Your task to perform on an android device: Open network settings Image 0: 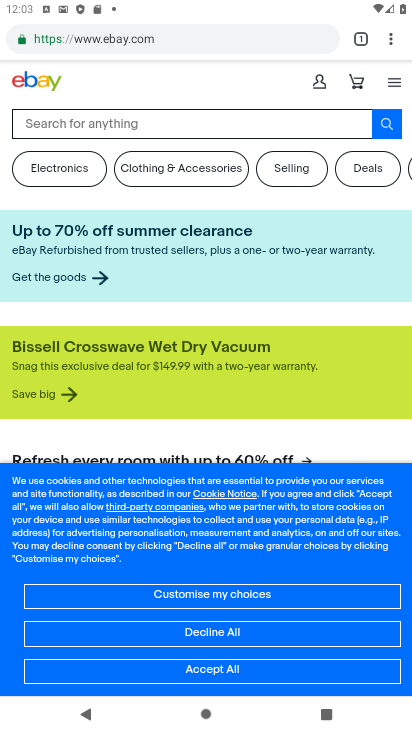
Step 0: press home button
Your task to perform on an android device: Open network settings Image 1: 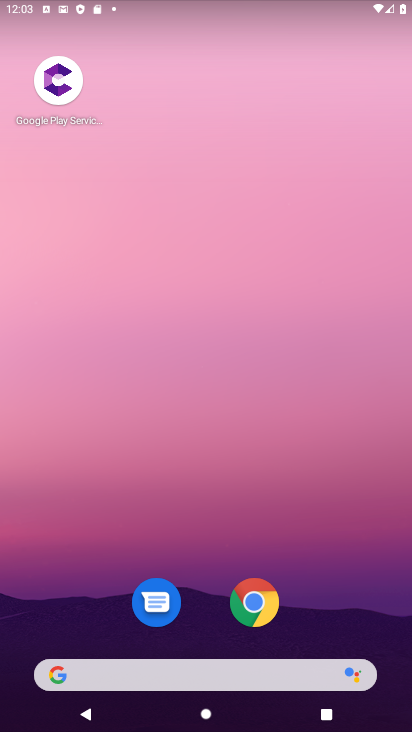
Step 1: drag from (217, 488) to (218, 35)
Your task to perform on an android device: Open network settings Image 2: 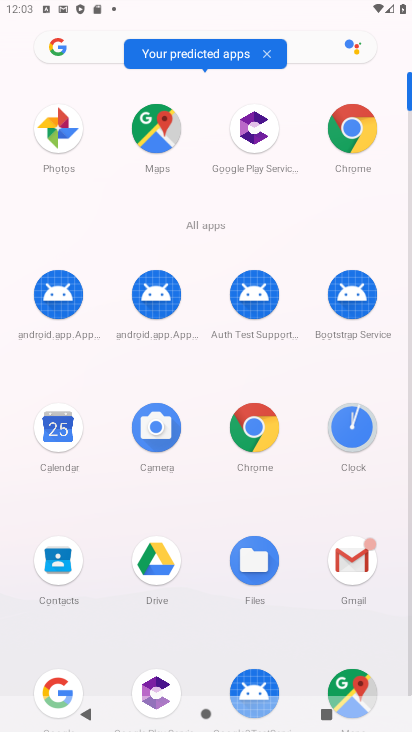
Step 2: drag from (176, 583) to (229, 149)
Your task to perform on an android device: Open network settings Image 3: 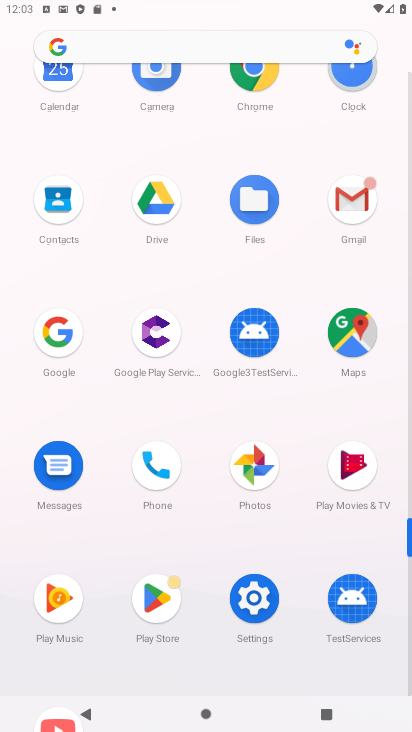
Step 3: click (251, 608)
Your task to perform on an android device: Open network settings Image 4: 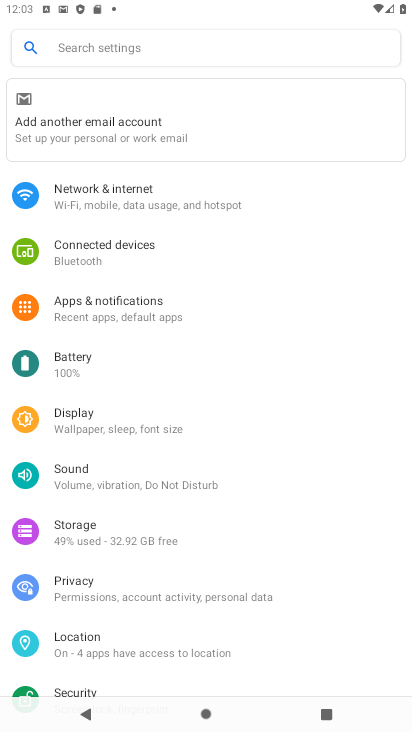
Step 4: click (116, 194)
Your task to perform on an android device: Open network settings Image 5: 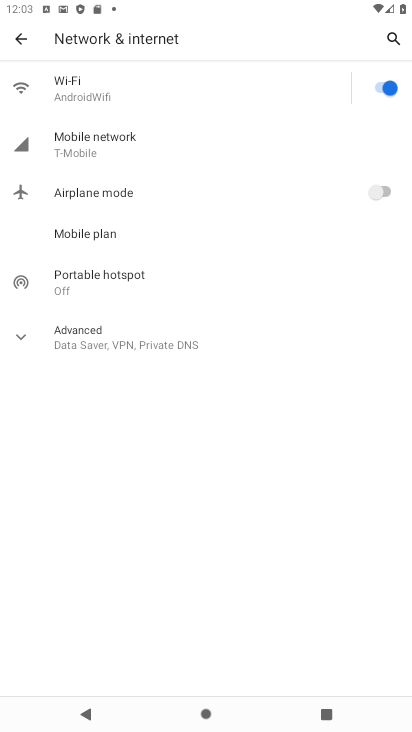
Step 5: task complete